Your task to perform on an android device: add a label to a message in the gmail app Image 0: 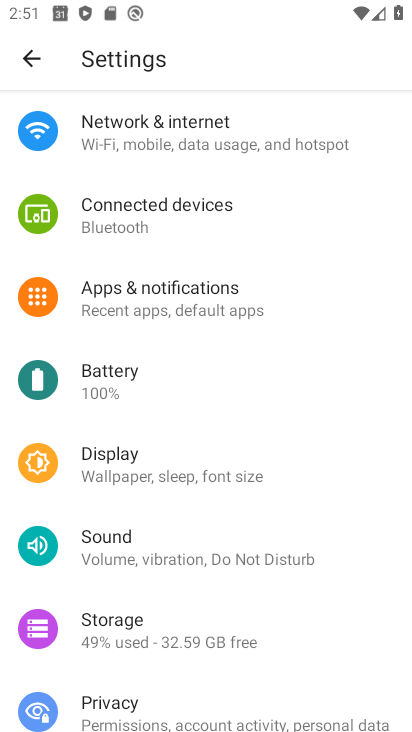
Step 0: press home button
Your task to perform on an android device: add a label to a message in the gmail app Image 1: 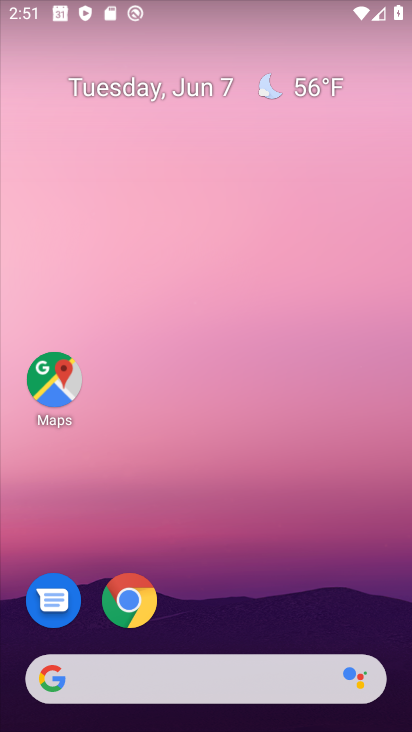
Step 1: drag from (387, 560) to (338, 127)
Your task to perform on an android device: add a label to a message in the gmail app Image 2: 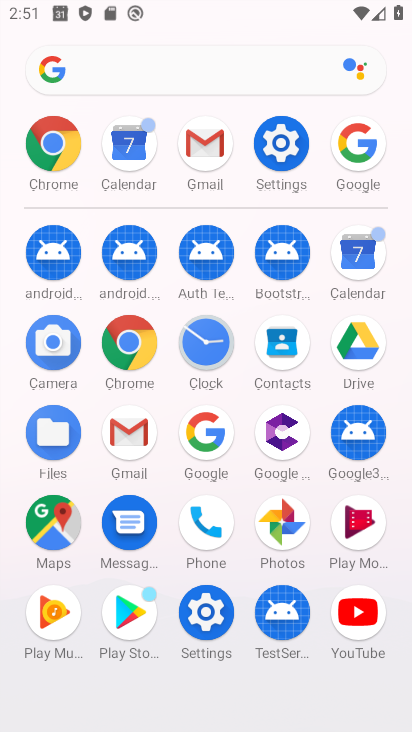
Step 2: click (116, 428)
Your task to perform on an android device: add a label to a message in the gmail app Image 3: 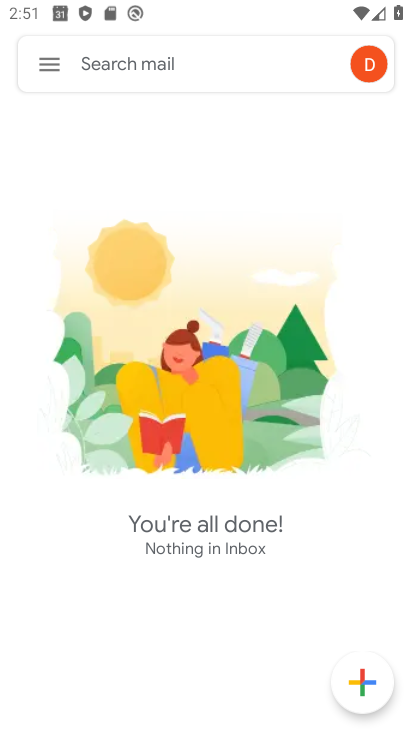
Step 3: click (50, 63)
Your task to perform on an android device: add a label to a message in the gmail app Image 4: 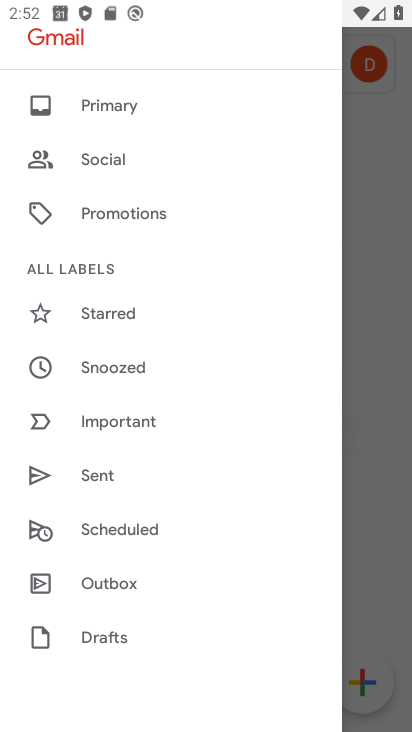
Step 4: click (128, 101)
Your task to perform on an android device: add a label to a message in the gmail app Image 5: 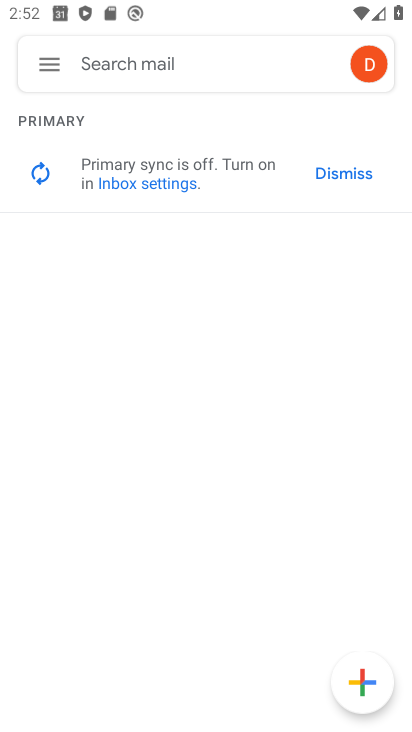
Step 5: task complete